Your task to perform on an android device: Toggle the flashlight Image 0: 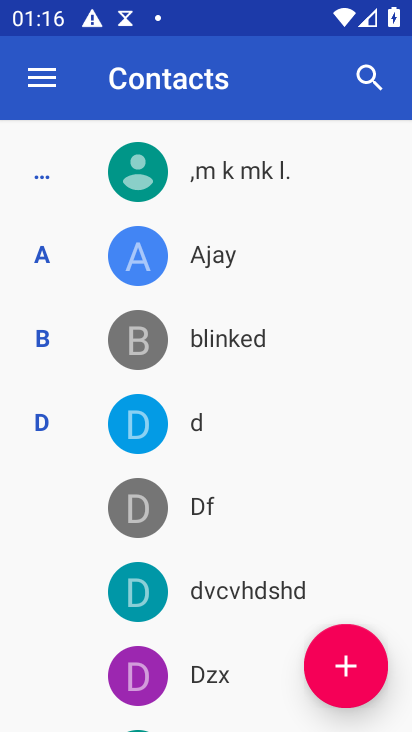
Step 0: drag from (235, 7) to (252, 277)
Your task to perform on an android device: Toggle the flashlight Image 1: 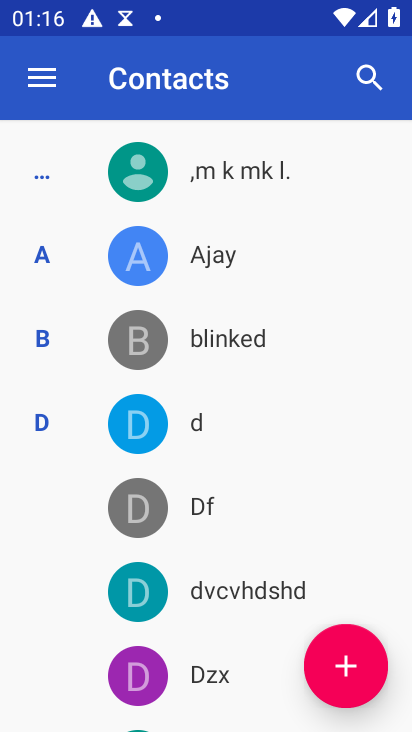
Step 1: drag from (245, 10) to (384, 688)
Your task to perform on an android device: Toggle the flashlight Image 2: 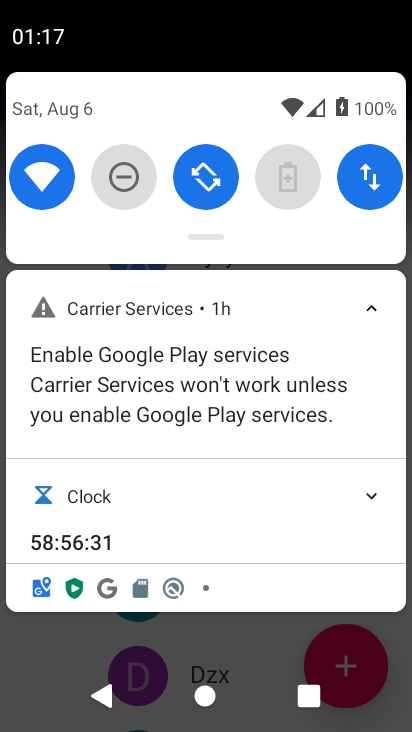
Step 2: drag from (244, 211) to (259, 651)
Your task to perform on an android device: Toggle the flashlight Image 3: 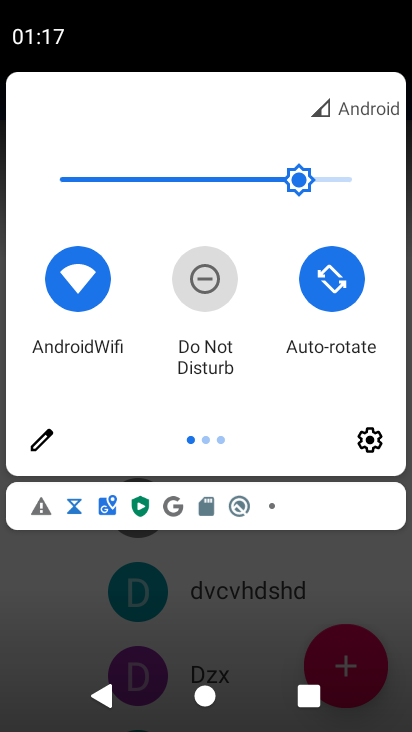
Step 3: click (41, 443)
Your task to perform on an android device: Toggle the flashlight Image 4: 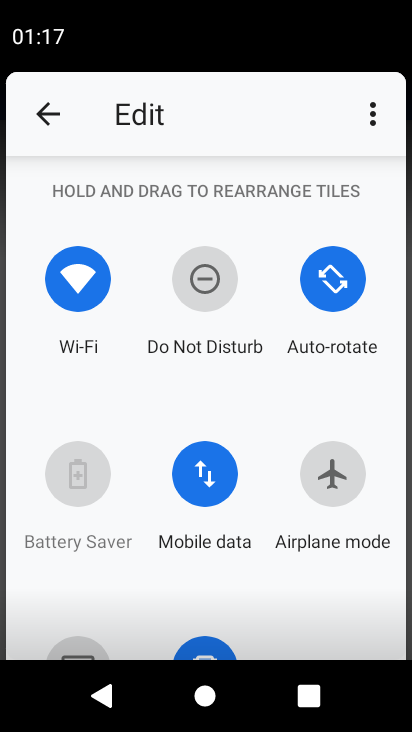
Step 4: task complete